Your task to perform on an android device: turn on the 24-hour format for clock Image 0: 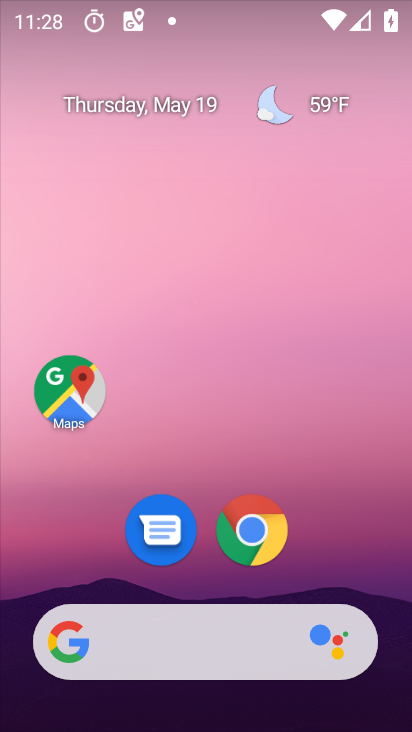
Step 0: drag from (378, 566) to (340, 158)
Your task to perform on an android device: turn on the 24-hour format for clock Image 1: 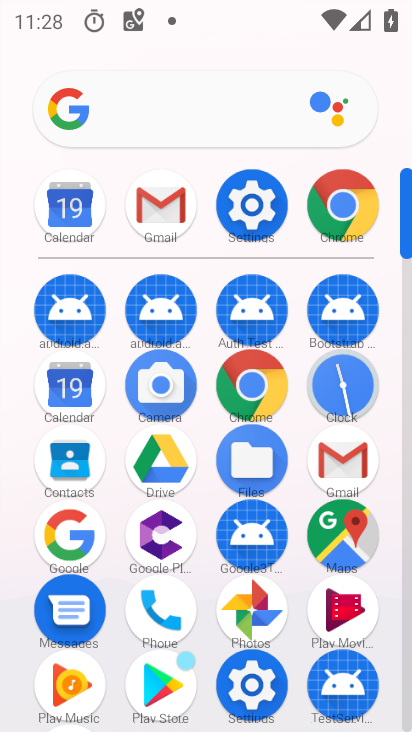
Step 1: click (345, 374)
Your task to perform on an android device: turn on the 24-hour format for clock Image 2: 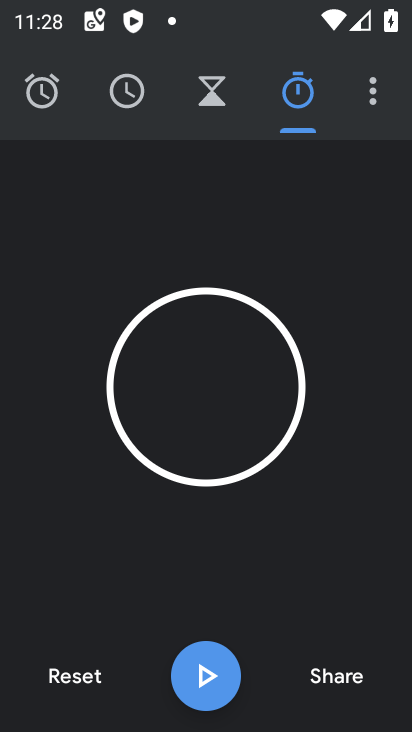
Step 2: click (371, 96)
Your task to perform on an android device: turn on the 24-hour format for clock Image 3: 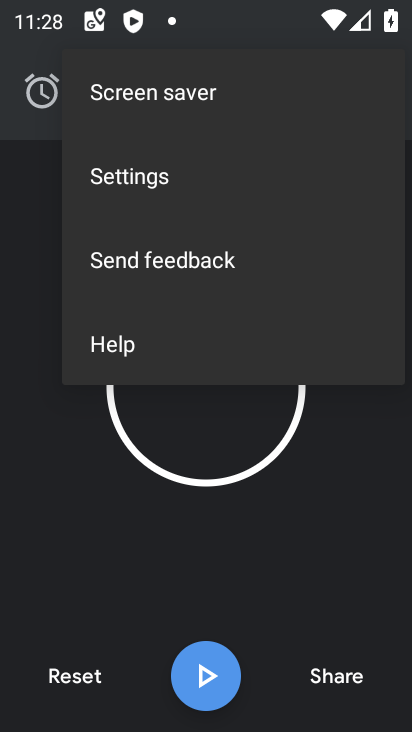
Step 3: click (184, 183)
Your task to perform on an android device: turn on the 24-hour format for clock Image 4: 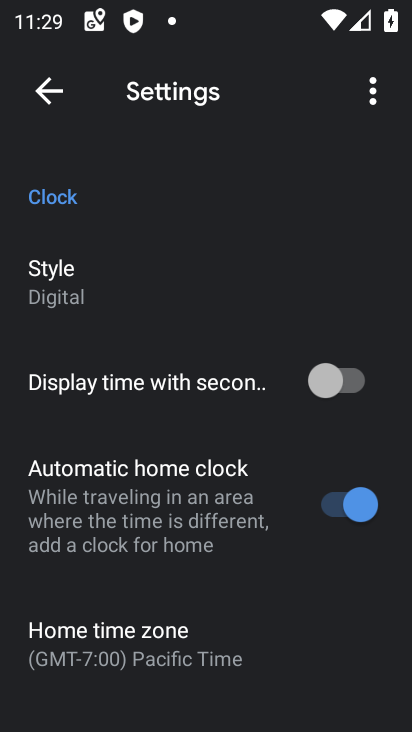
Step 4: click (373, 114)
Your task to perform on an android device: turn on the 24-hour format for clock Image 5: 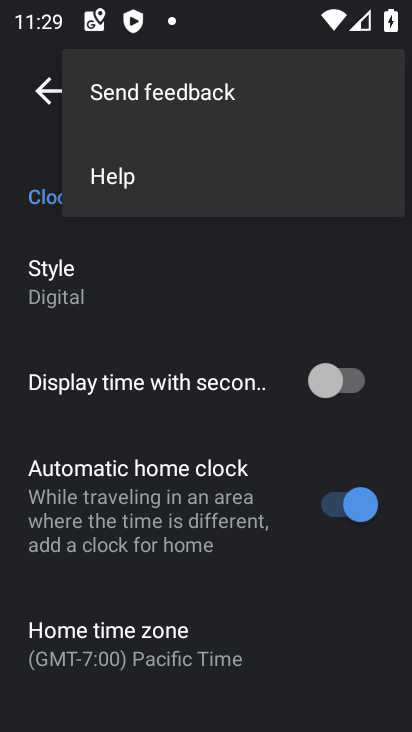
Step 5: click (182, 307)
Your task to perform on an android device: turn on the 24-hour format for clock Image 6: 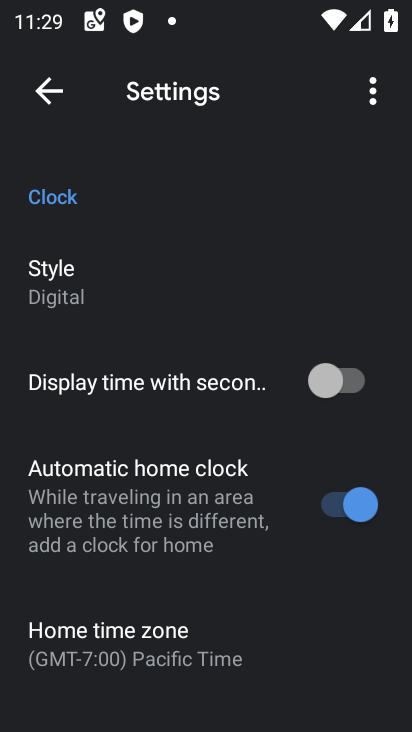
Step 6: drag from (228, 586) to (259, 215)
Your task to perform on an android device: turn on the 24-hour format for clock Image 7: 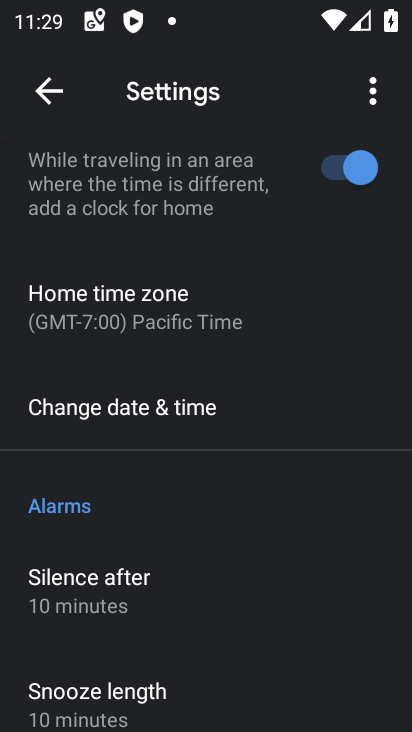
Step 7: click (200, 410)
Your task to perform on an android device: turn on the 24-hour format for clock Image 8: 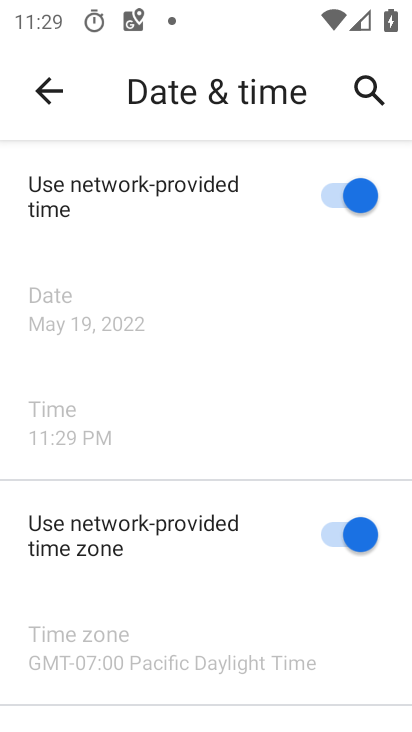
Step 8: drag from (227, 621) to (224, 311)
Your task to perform on an android device: turn on the 24-hour format for clock Image 9: 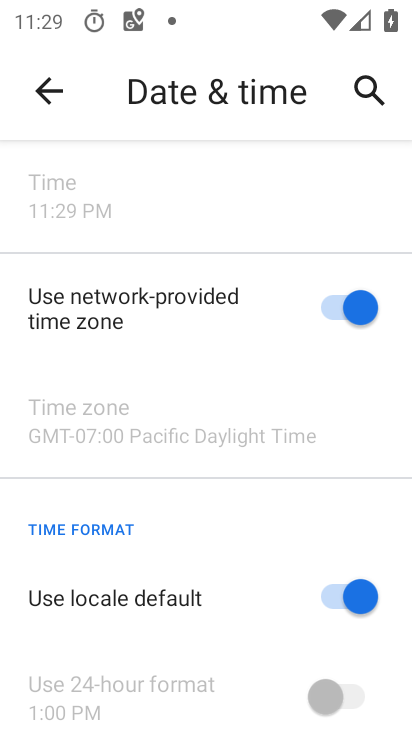
Step 9: click (328, 597)
Your task to perform on an android device: turn on the 24-hour format for clock Image 10: 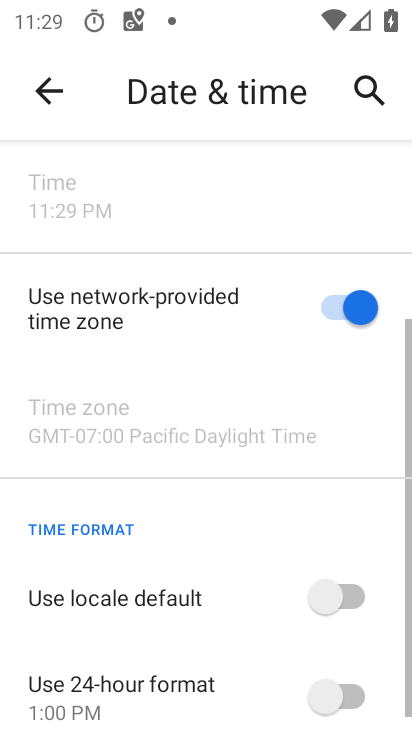
Step 10: click (349, 698)
Your task to perform on an android device: turn on the 24-hour format for clock Image 11: 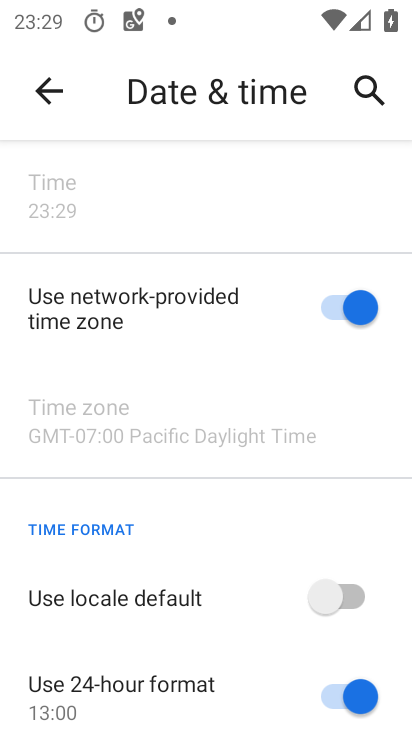
Step 11: task complete